Your task to perform on an android device: check android version Image 0: 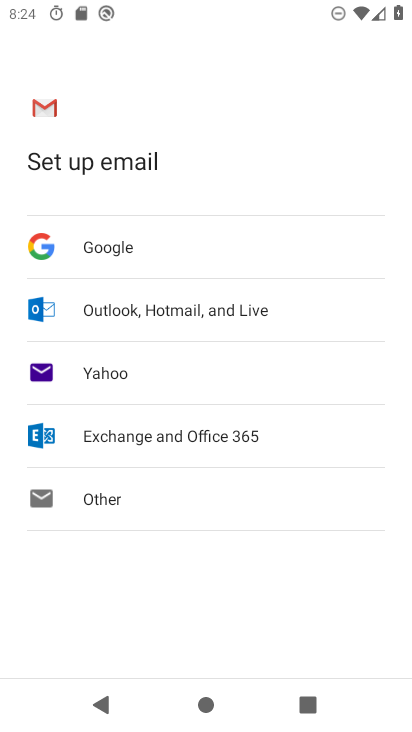
Step 0: press home button
Your task to perform on an android device: check android version Image 1: 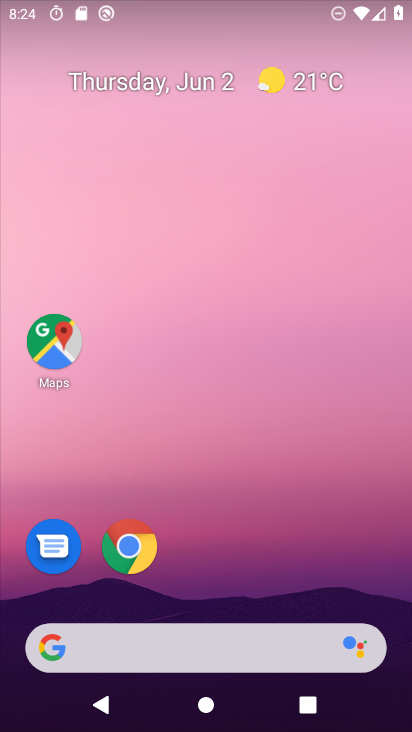
Step 1: drag from (303, 468) to (290, 170)
Your task to perform on an android device: check android version Image 2: 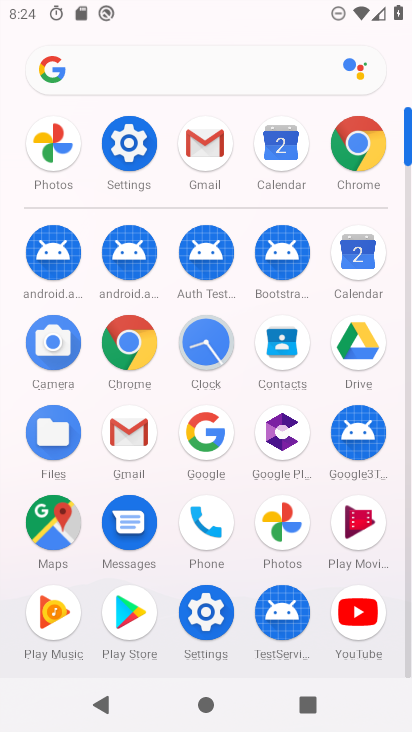
Step 2: click (113, 156)
Your task to perform on an android device: check android version Image 3: 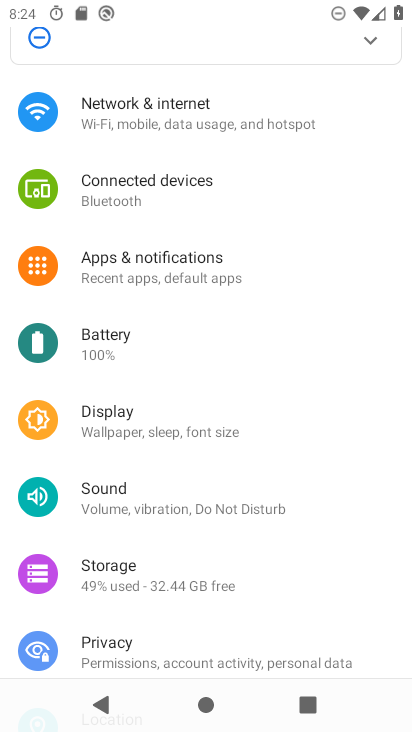
Step 3: drag from (237, 621) to (302, 259)
Your task to perform on an android device: check android version Image 4: 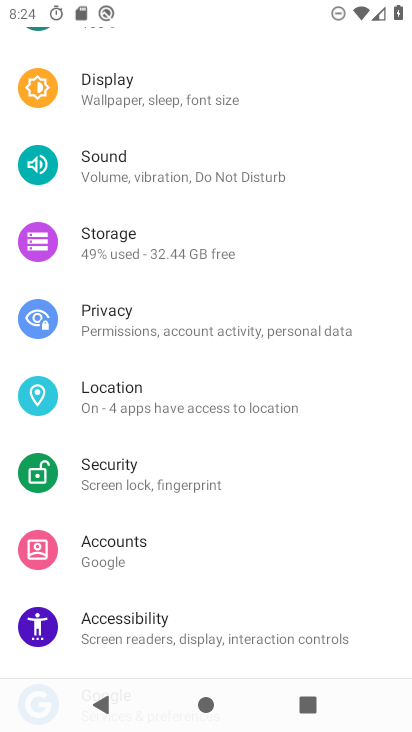
Step 4: drag from (269, 590) to (305, 273)
Your task to perform on an android device: check android version Image 5: 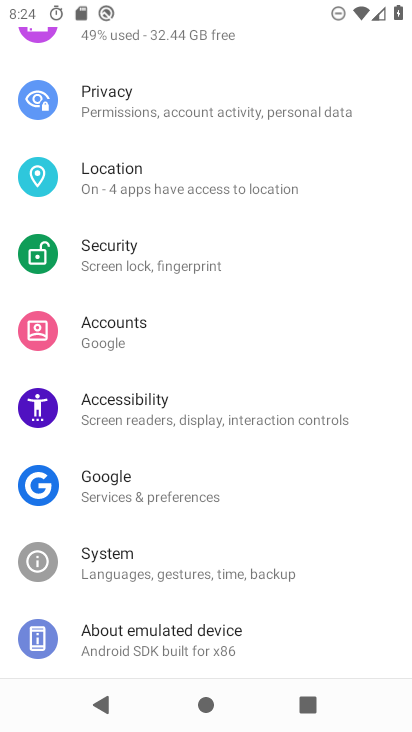
Step 5: drag from (235, 620) to (342, 230)
Your task to perform on an android device: check android version Image 6: 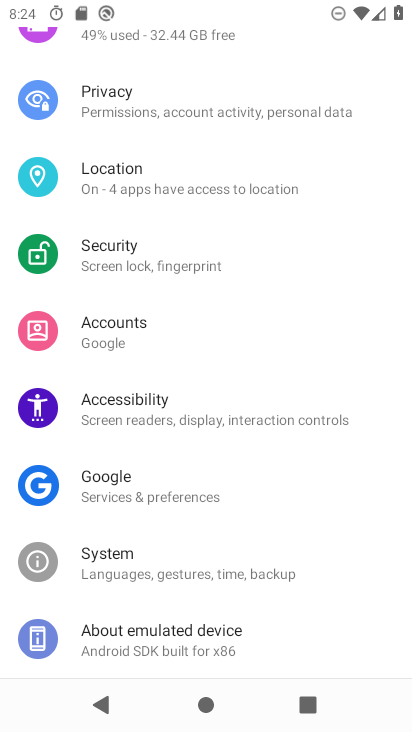
Step 6: click (196, 637)
Your task to perform on an android device: check android version Image 7: 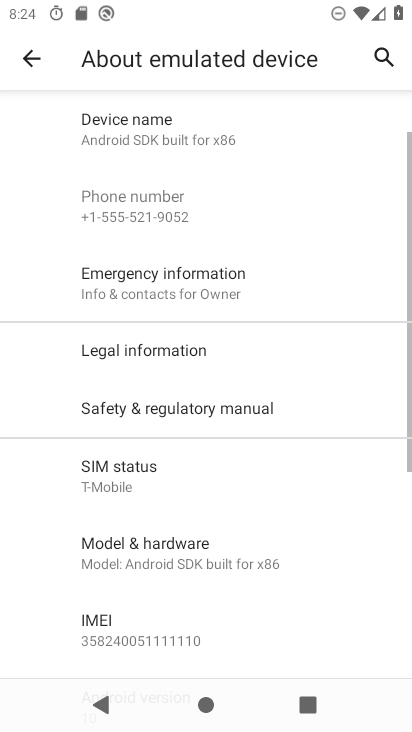
Step 7: drag from (222, 568) to (259, 310)
Your task to perform on an android device: check android version Image 8: 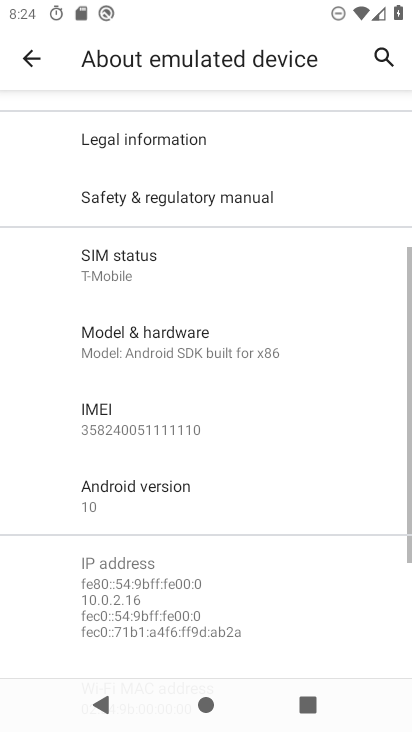
Step 8: click (175, 497)
Your task to perform on an android device: check android version Image 9: 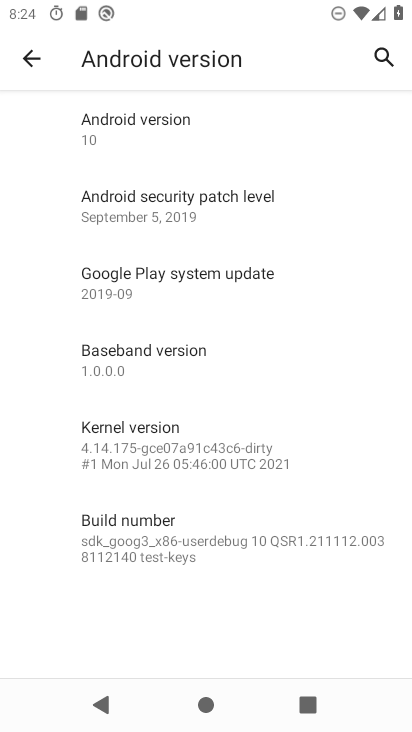
Step 9: task complete